Your task to perform on an android device: What's on my calendar today? Image 0: 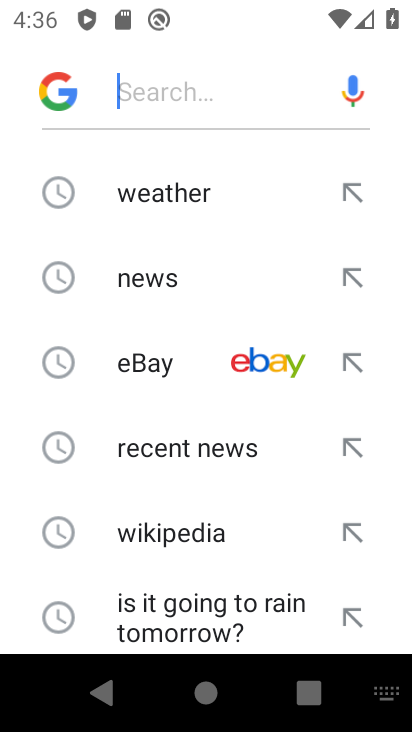
Step 0: press home button
Your task to perform on an android device: What's on my calendar today? Image 1: 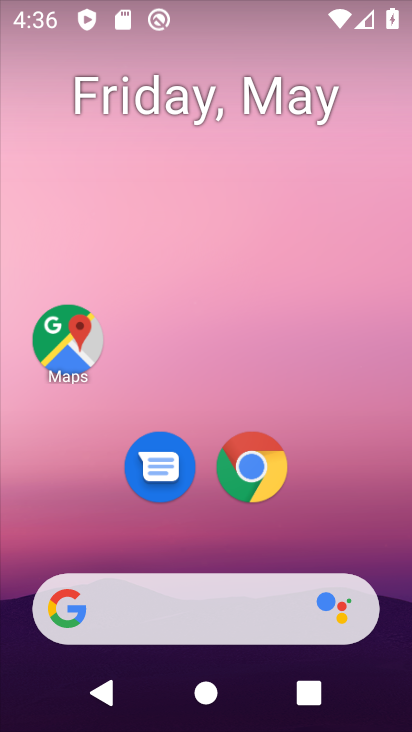
Step 1: drag from (323, 537) to (299, 66)
Your task to perform on an android device: What's on my calendar today? Image 2: 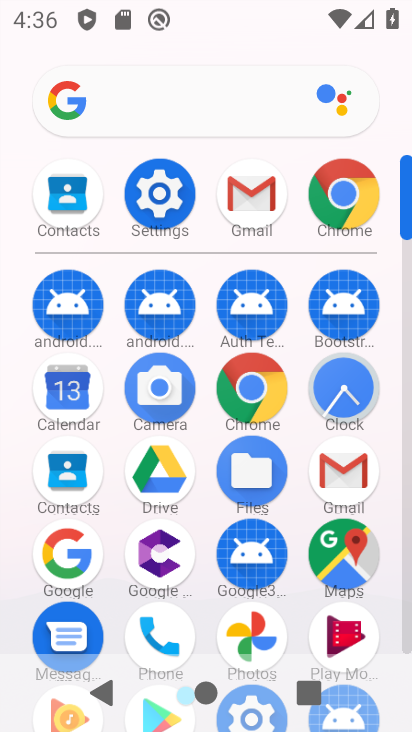
Step 2: click (55, 402)
Your task to perform on an android device: What's on my calendar today? Image 3: 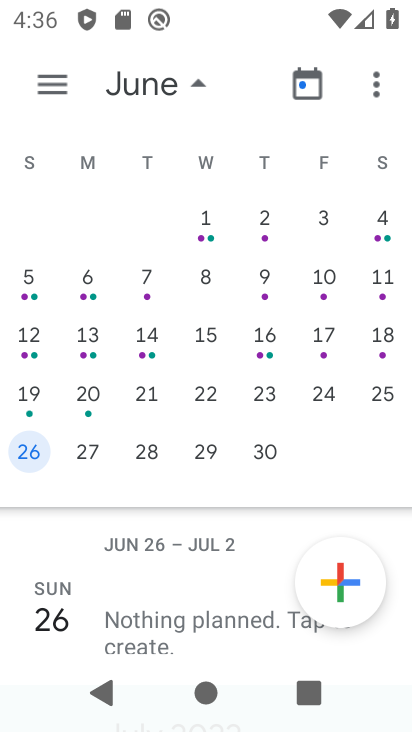
Step 3: drag from (84, 302) to (403, 251)
Your task to perform on an android device: What's on my calendar today? Image 4: 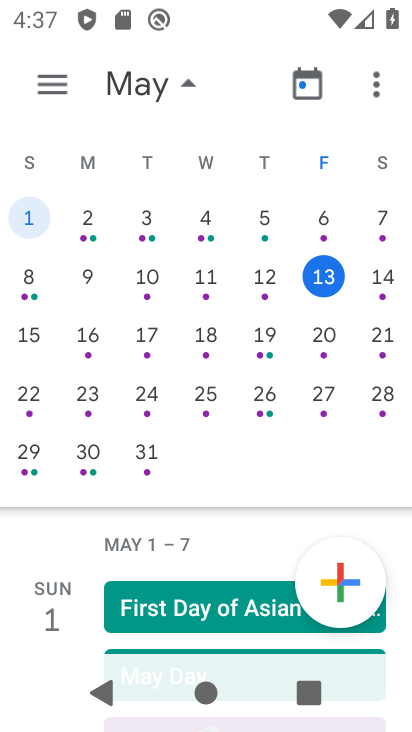
Step 4: drag from (219, 598) to (311, 90)
Your task to perform on an android device: What's on my calendar today? Image 5: 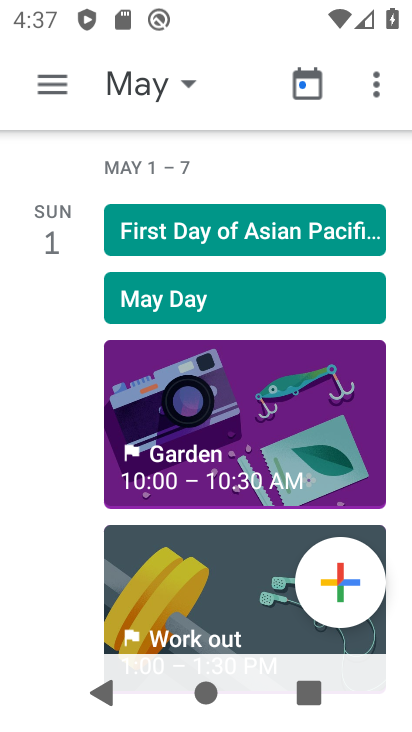
Step 5: click (168, 75)
Your task to perform on an android device: What's on my calendar today? Image 6: 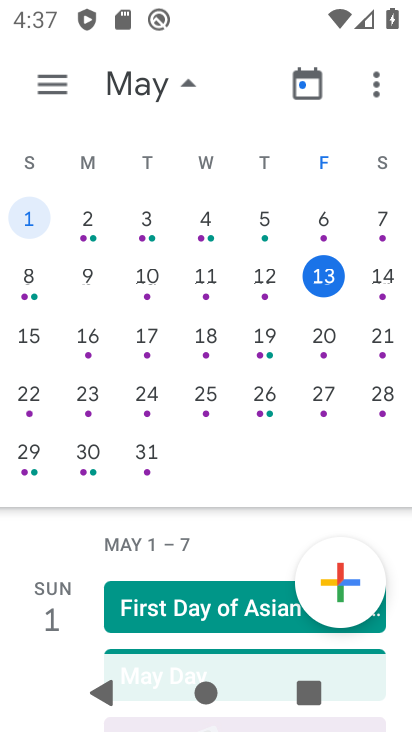
Step 6: click (324, 273)
Your task to perform on an android device: What's on my calendar today? Image 7: 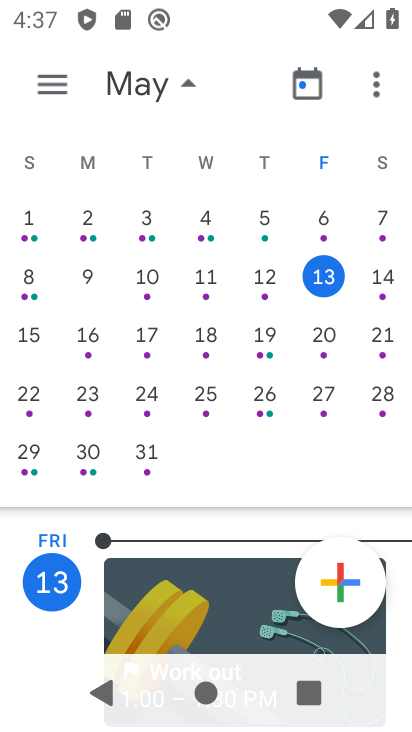
Step 7: task complete